Your task to perform on an android device: Open Wikipedia Image 0: 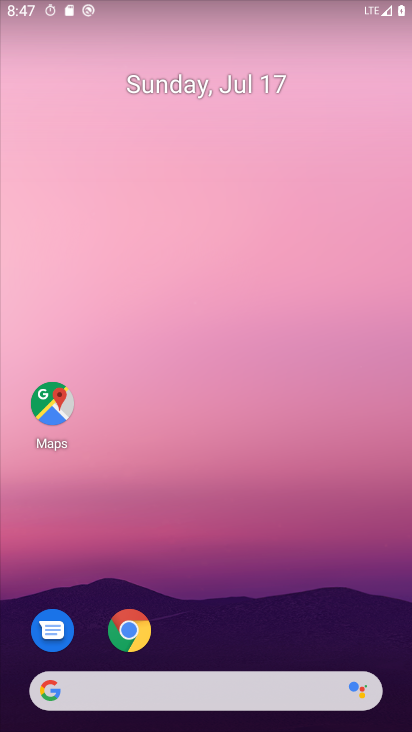
Step 0: drag from (206, 636) to (242, 1)
Your task to perform on an android device: Open Wikipedia Image 1: 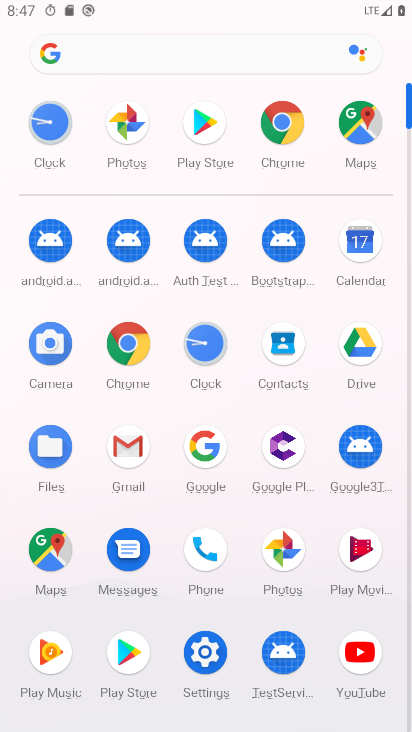
Step 1: click (132, 373)
Your task to perform on an android device: Open Wikipedia Image 2: 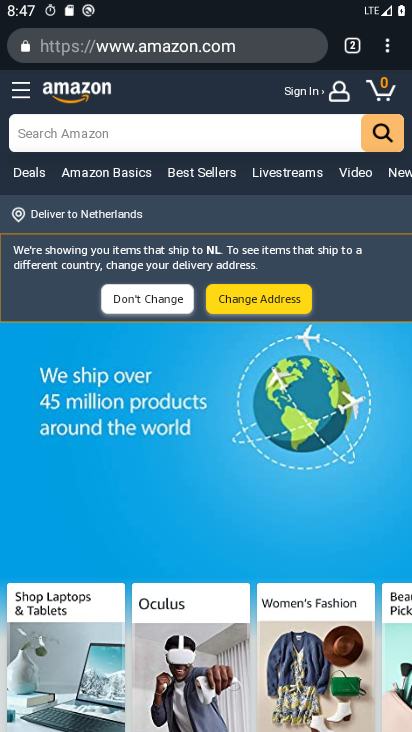
Step 2: click (235, 56)
Your task to perform on an android device: Open Wikipedia Image 3: 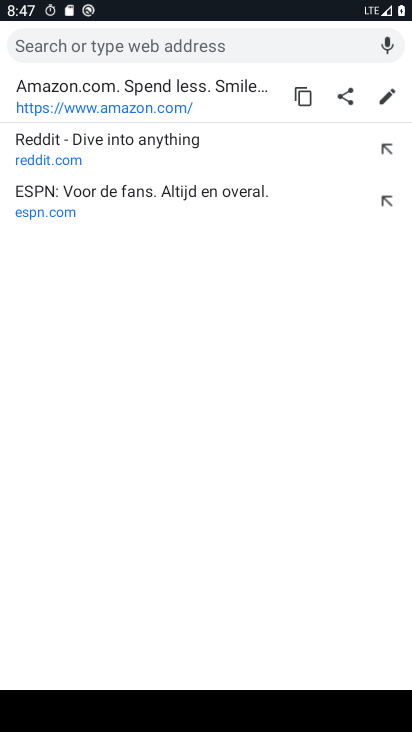
Step 3: type "wikipedia"
Your task to perform on an android device: Open Wikipedia Image 4: 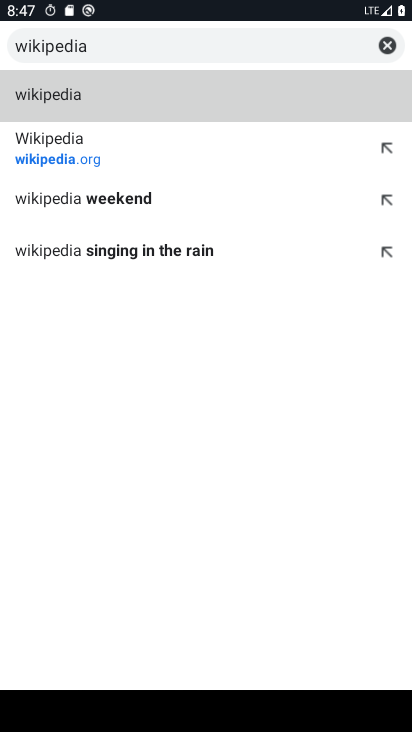
Step 4: click (96, 168)
Your task to perform on an android device: Open Wikipedia Image 5: 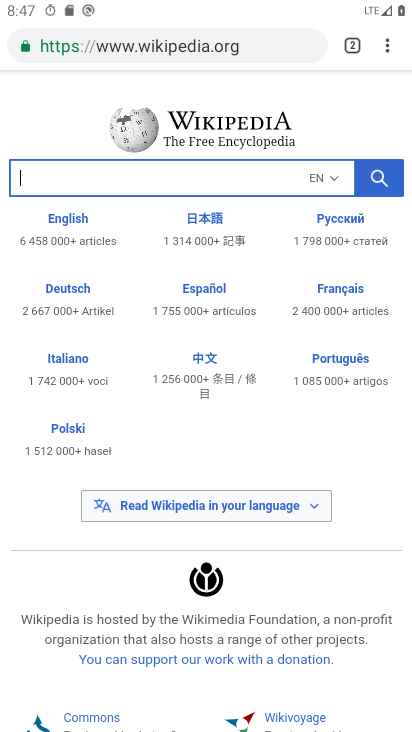
Step 5: task complete